Your task to perform on an android device: Turn on the flashlight Image 0: 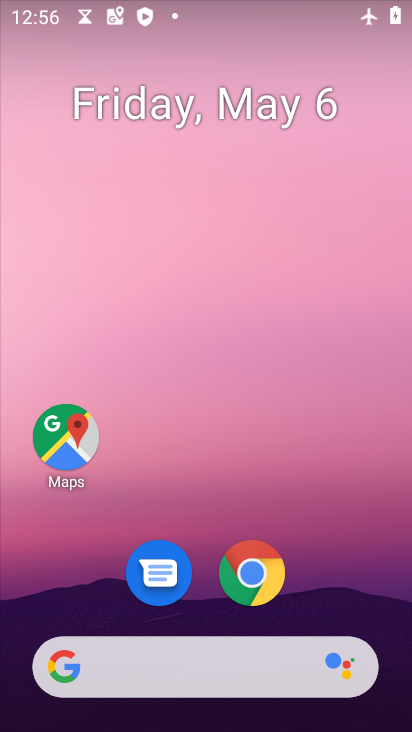
Step 0: drag from (341, 594) to (405, 300)
Your task to perform on an android device: Turn on the flashlight Image 1: 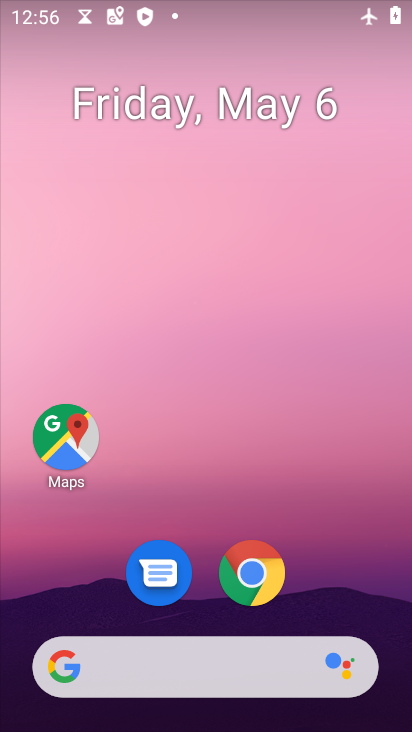
Step 1: drag from (297, 546) to (308, 230)
Your task to perform on an android device: Turn on the flashlight Image 2: 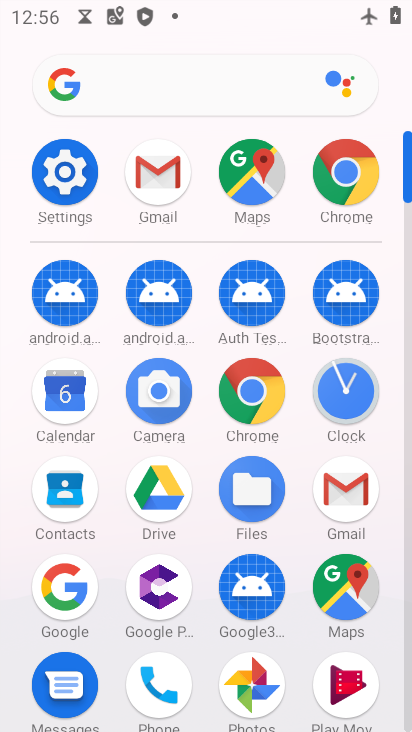
Step 2: click (77, 153)
Your task to perform on an android device: Turn on the flashlight Image 3: 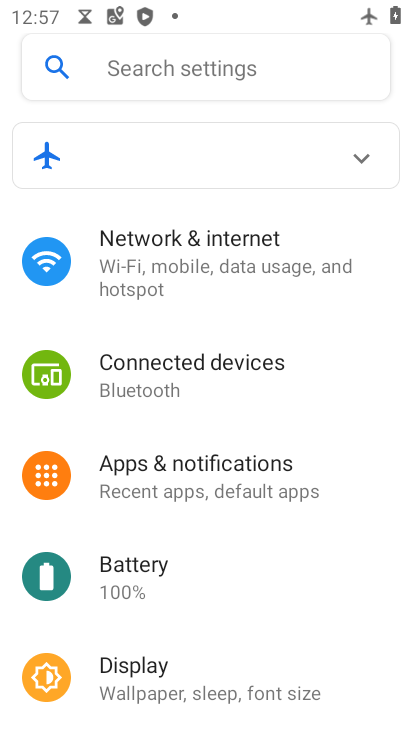
Step 3: task complete